Your task to perform on an android device: turn on notifications settings in the gmail app Image 0: 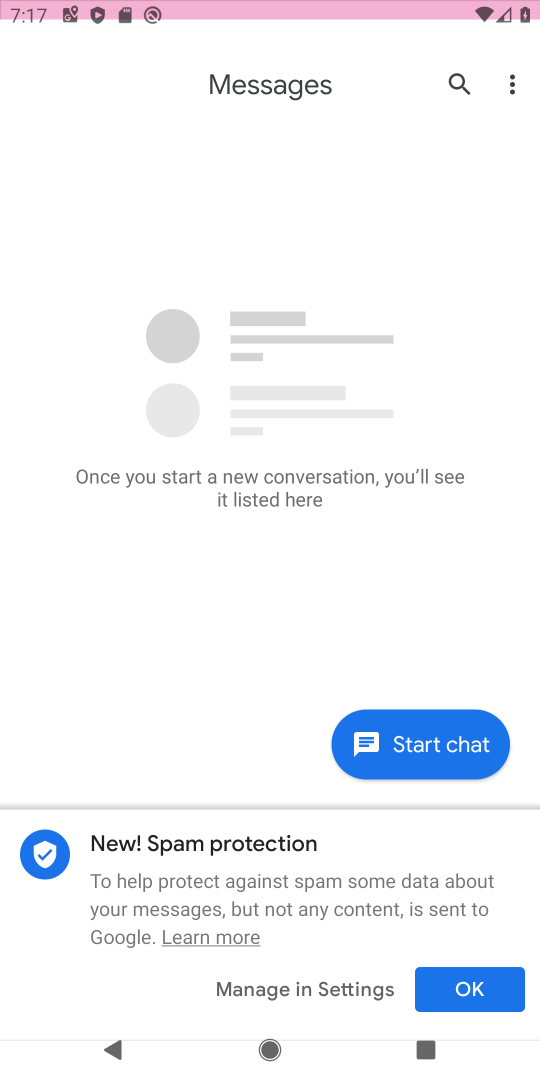
Step 0: click (238, 978)
Your task to perform on an android device: turn on notifications settings in the gmail app Image 1: 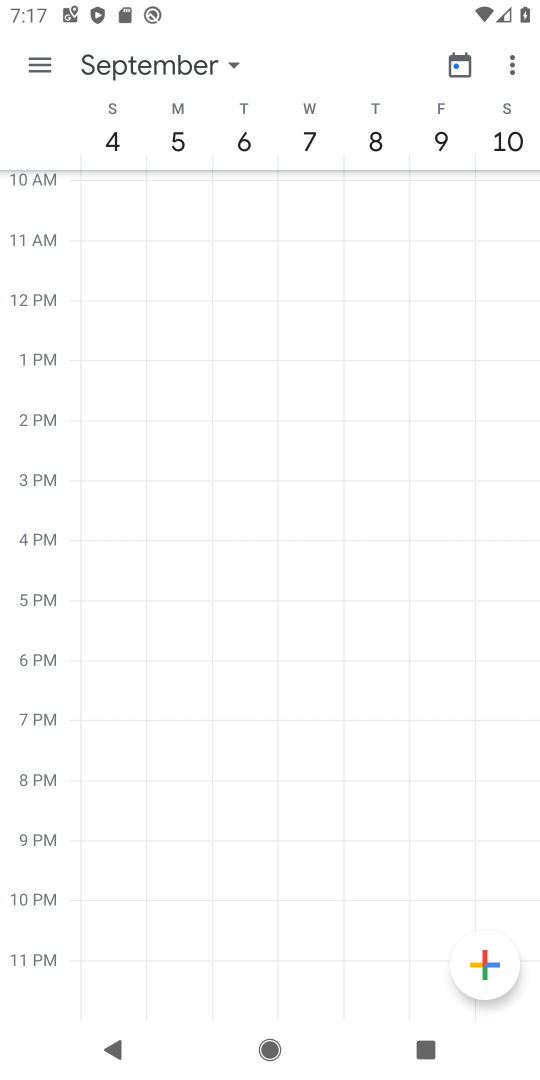
Step 1: press home button
Your task to perform on an android device: turn on notifications settings in the gmail app Image 2: 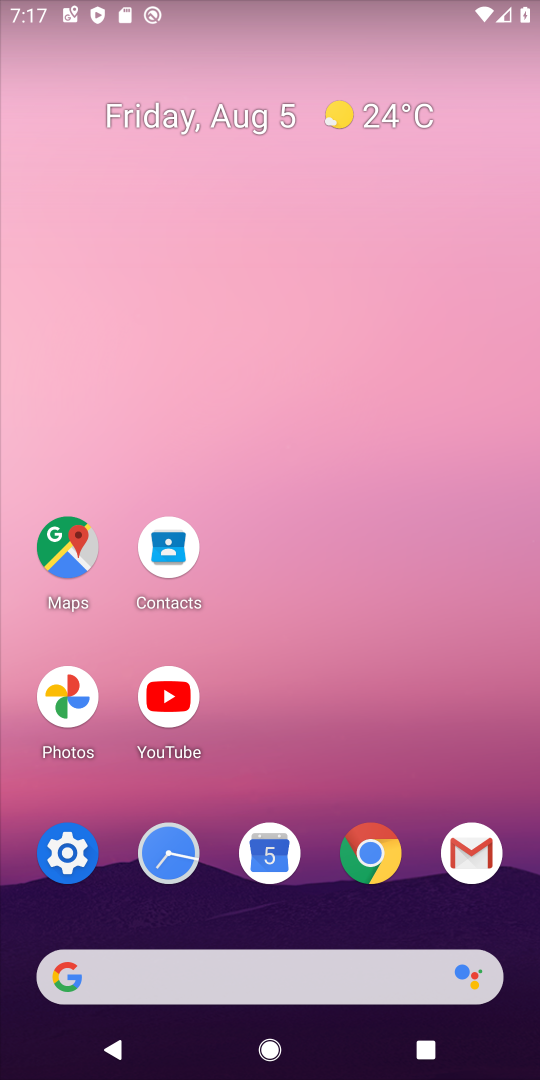
Step 2: click (491, 859)
Your task to perform on an android device: turn on notifications settings in the gmail app Image 3: 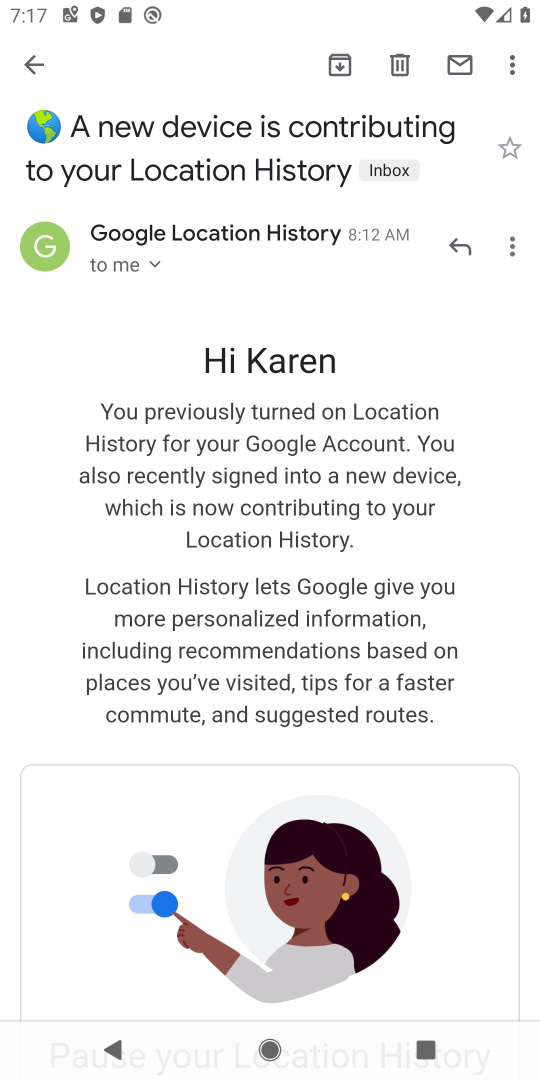
Step 3: click (43, 70)
Your task to perform on an android device: turn on notifications settings in the gmail app Image 4: 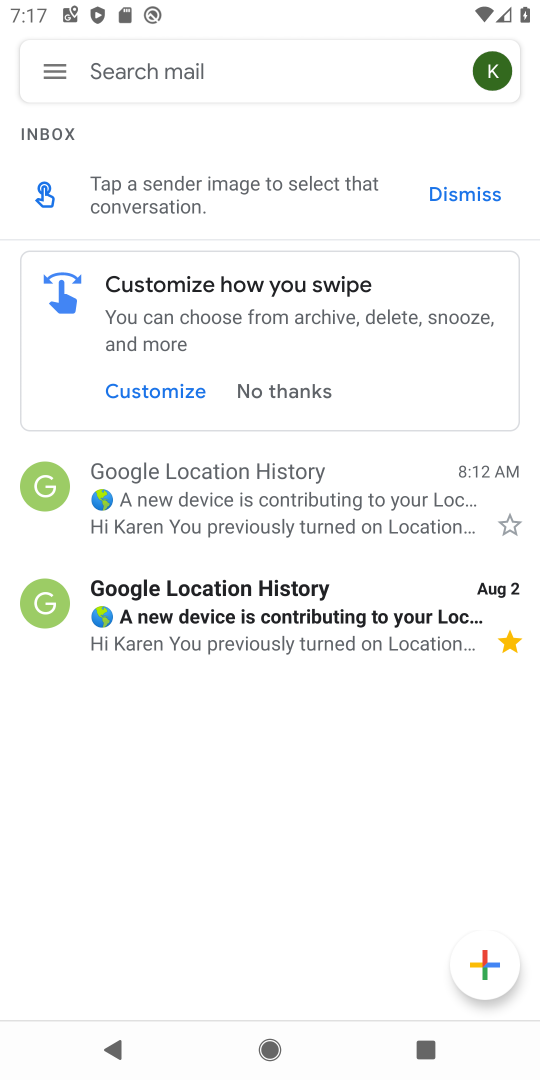
Step 4: click (53, 67)
Your task to perform on an android device: turn on notifications settings in the gmail app Image 5: 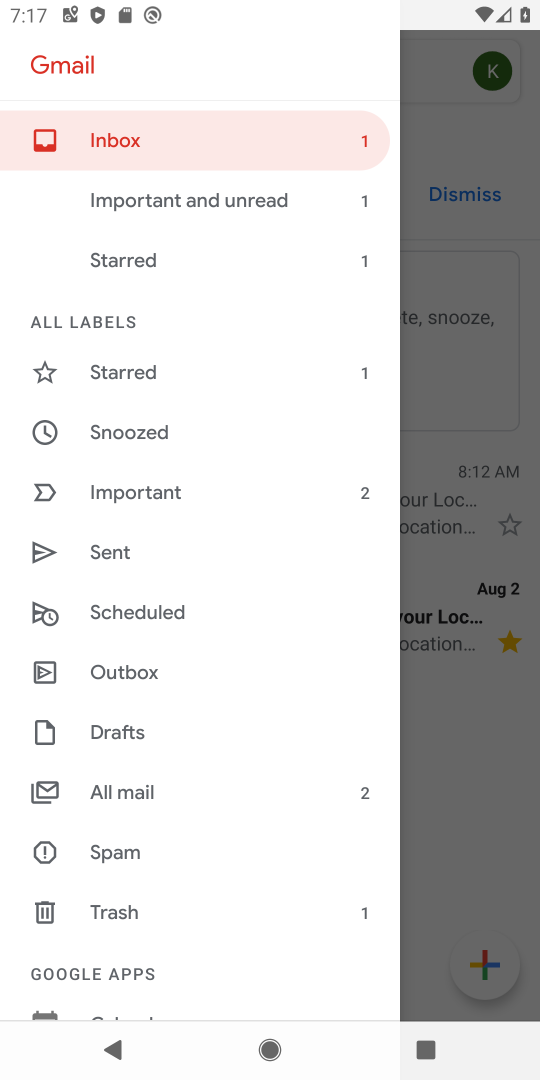
Step 5: drag from (213, 974) to (183, 467)
Your task to perform on an android device: turn on notifications settings in the gmail app Image 6: 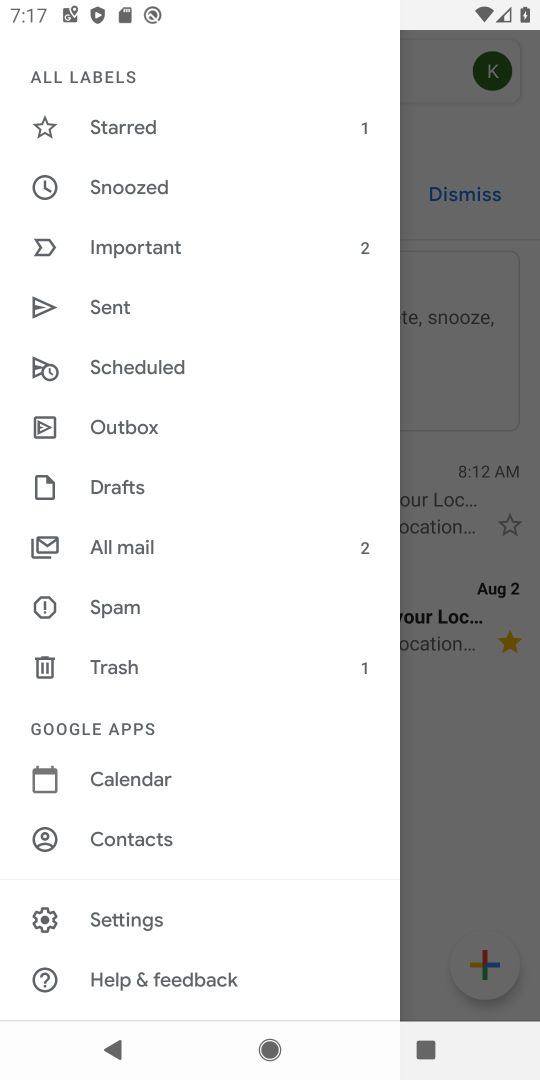
Step 6: click (127, 917)
Your task to perform on an android device: turn on notifications settings in the gmail app Image 7: 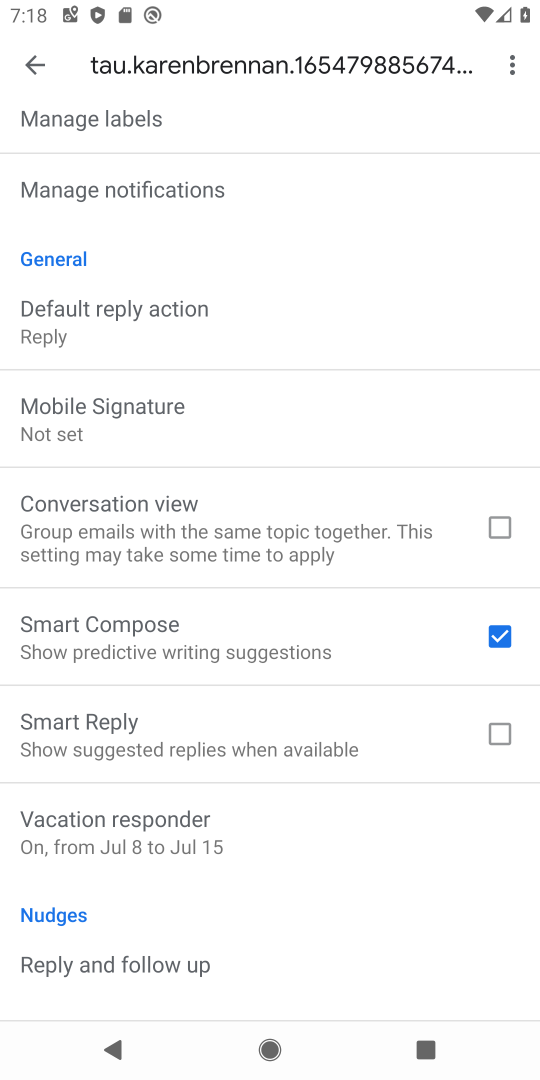
Step 7: click (38, 70)
Your task to perform on an android device: turn on notifications settings in the gmail app Image 8: 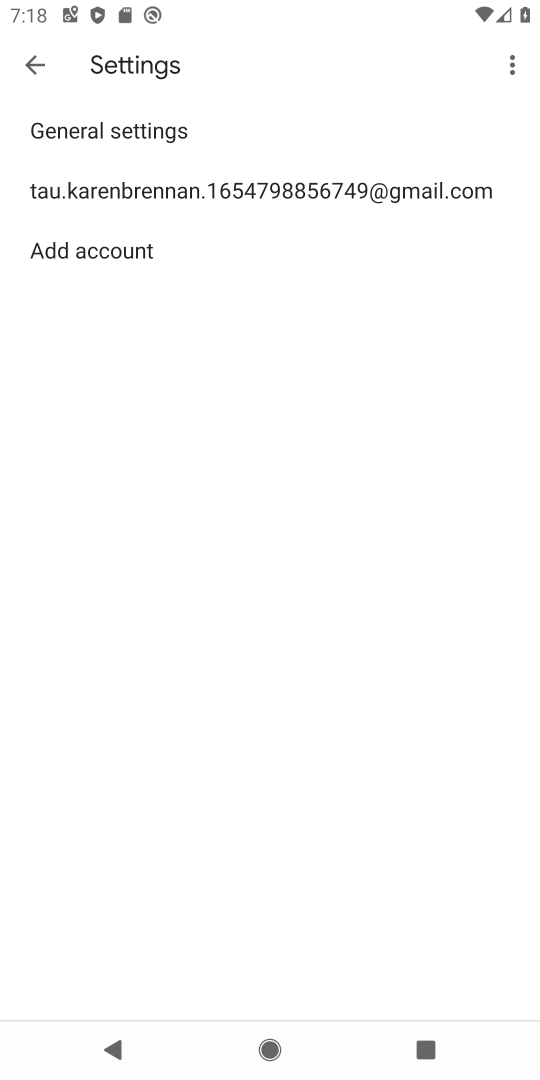
Step 8: click (112, 135)
Your task to perform on an android device: turn on notifications settings in the gmail app Image 9: 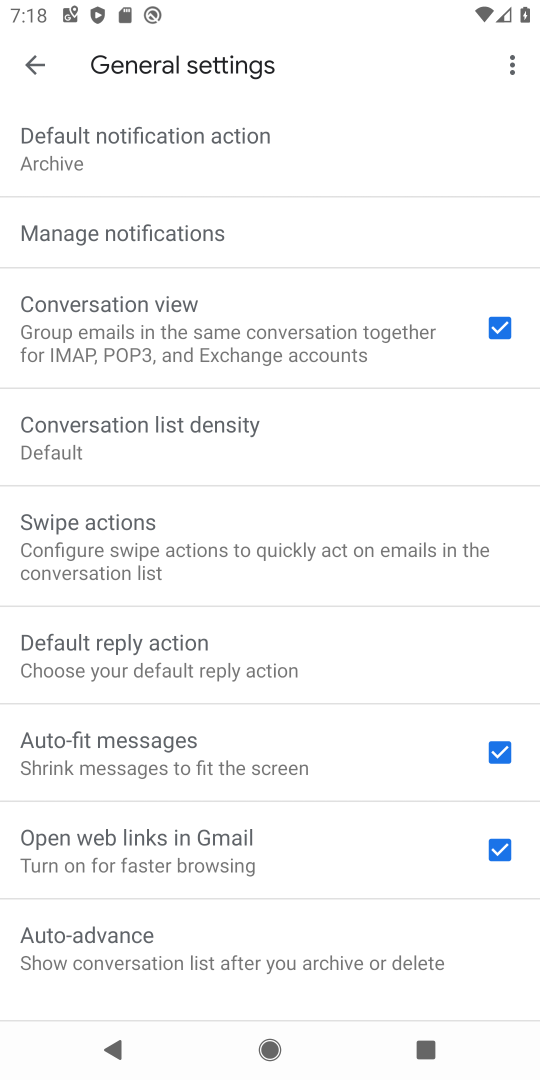
Step 9: click (121, 224)
Your task to perform on an android device: turn on notifications settings in the gmail app Image 10: 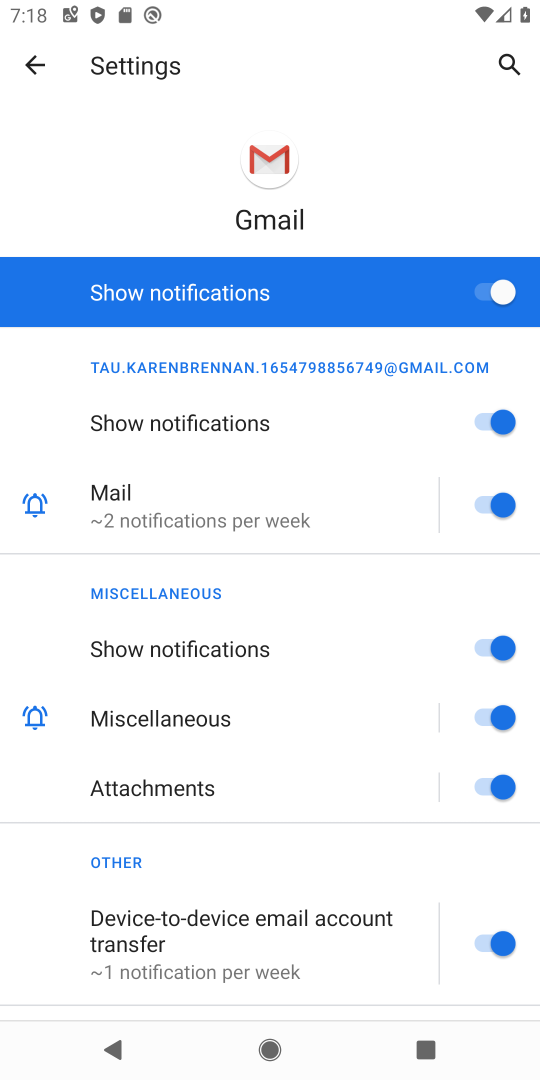
Step 10: task complete